Your task to perform on an android device: Open the web browser Image 0: 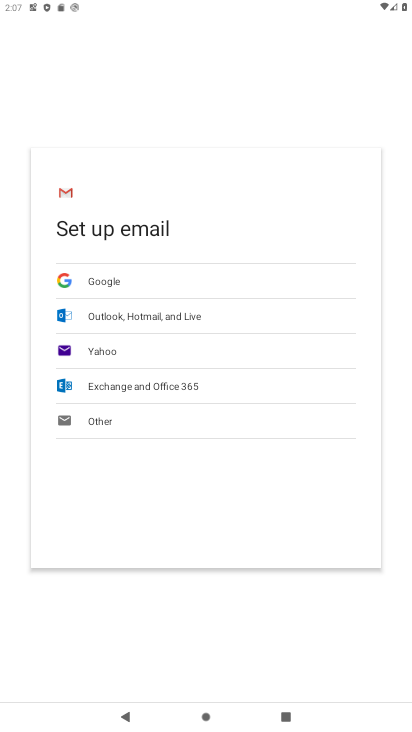
Step 0: press home button
Your task to perform on an android device: Open the web browser Image 1: 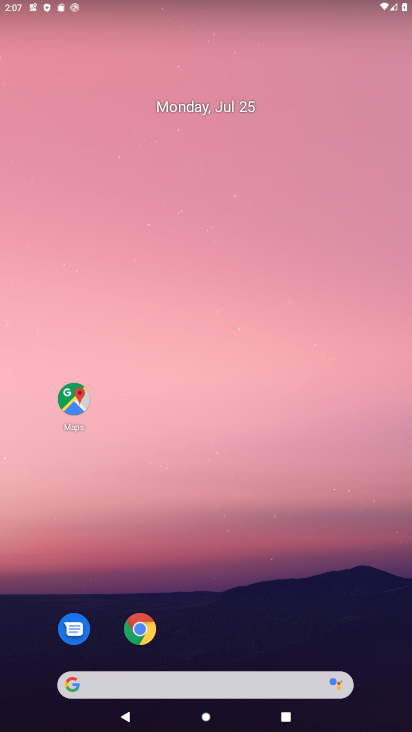
Step 1: click (146, 633)
Your task to perform on an android device: Open the web browser Image 2: 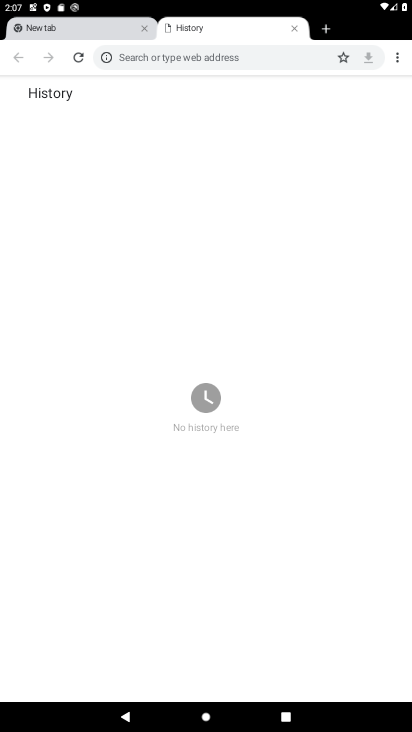
Step 2: click (297, 27)
Your task to perform on an android device: Open the web browser Image 3: 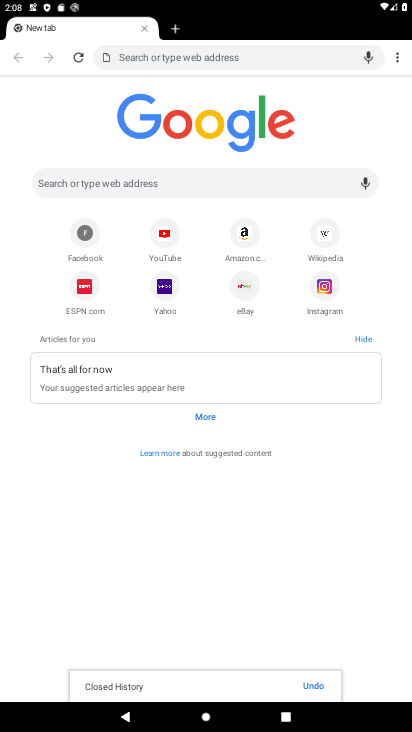
Step 3: task complete